Your task to perform on an android device: open chrome and create a bookmark for the current page Image 0: 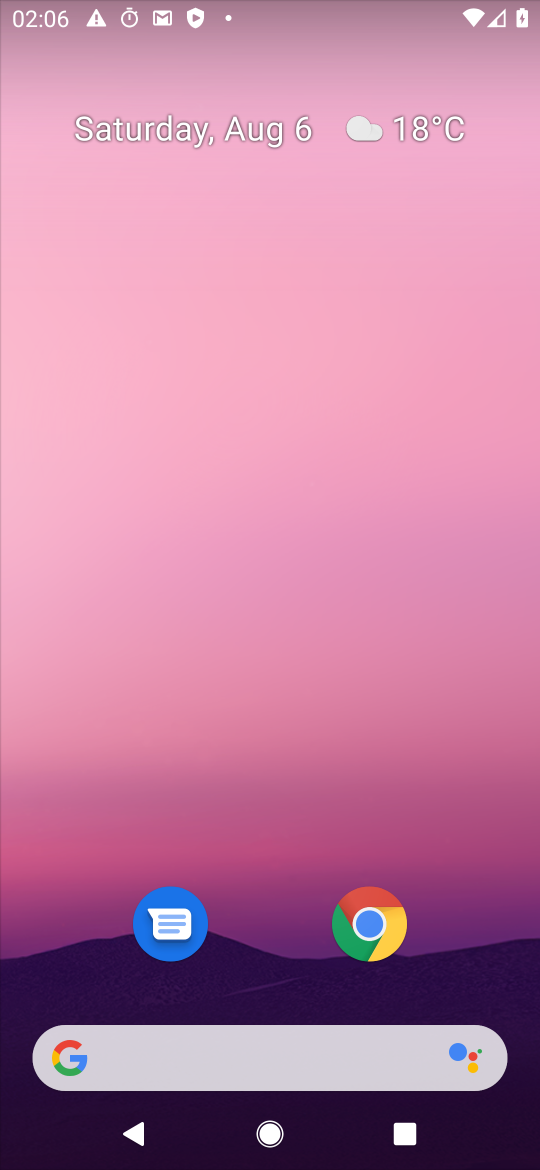
Step 0: drag from (248, 1039) to (132, 3)
Your task to perform on an android device: open chrome and create a bookmark for the current page Image 1: 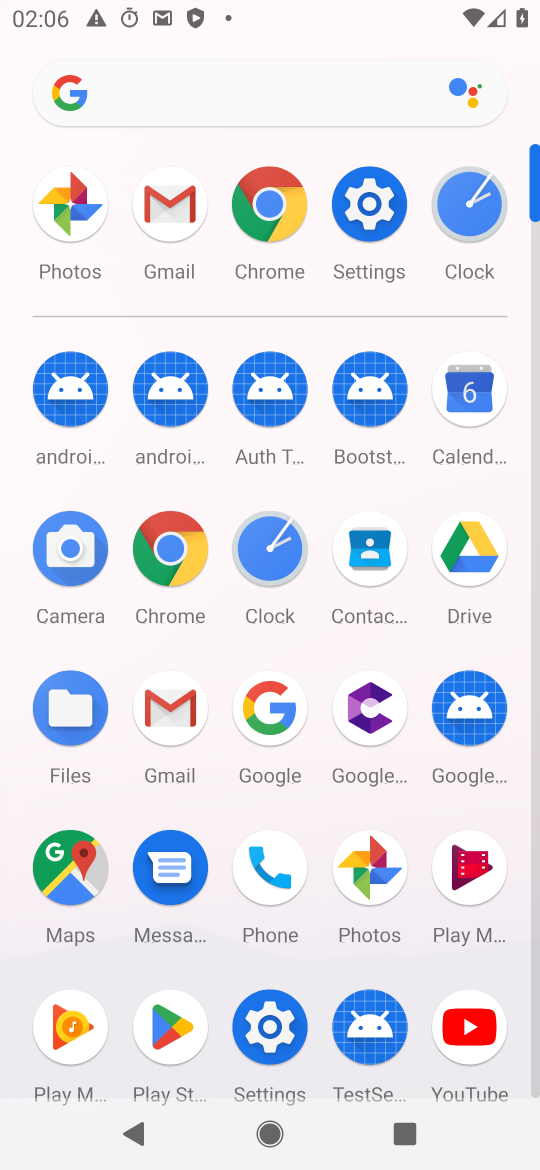
Step 1: click (152, 582)
Your task to perform on an android device: open chrome and create a bookmark for the current page Image 2: 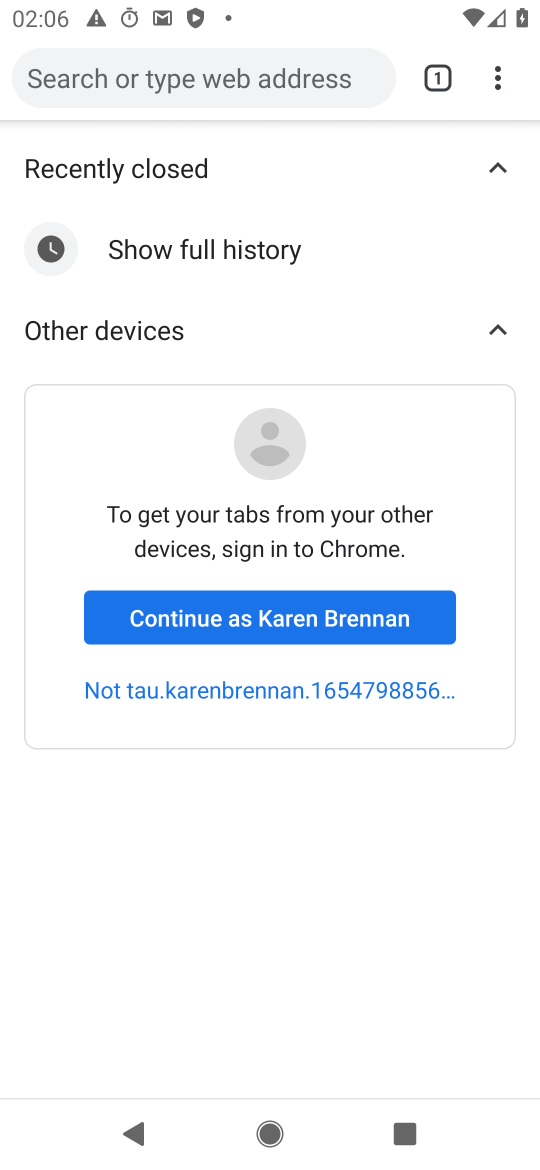
Step 2: click (491, 76)
Your task to perform on an android device: open chrome and create a bookmark for the current page Image 3: 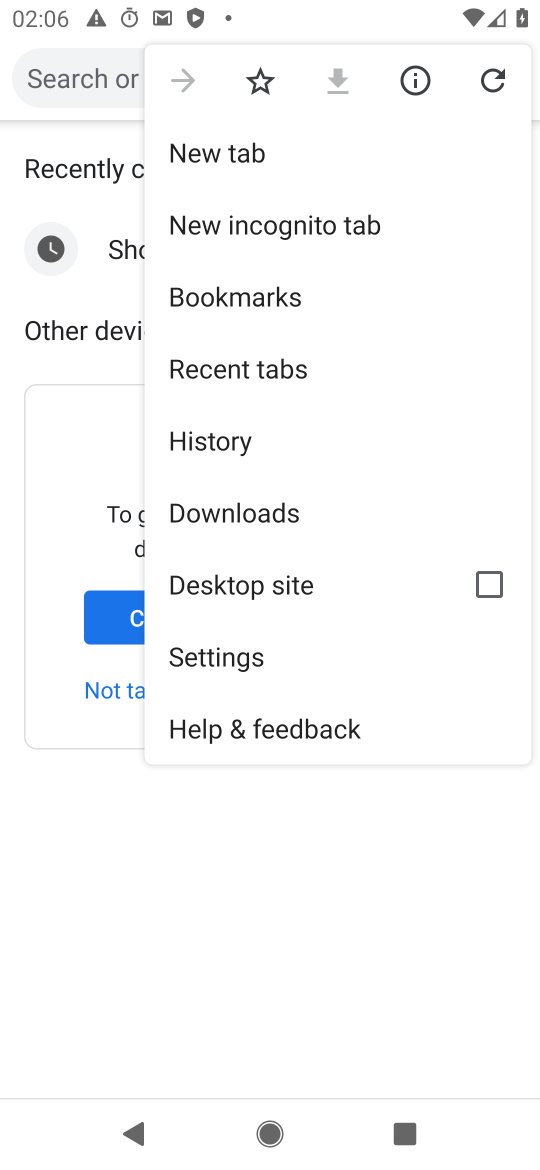
Step 3: click (251, 79)
Your task to perform on an android device: open chrome and create a bookmark for the current page Image 4: 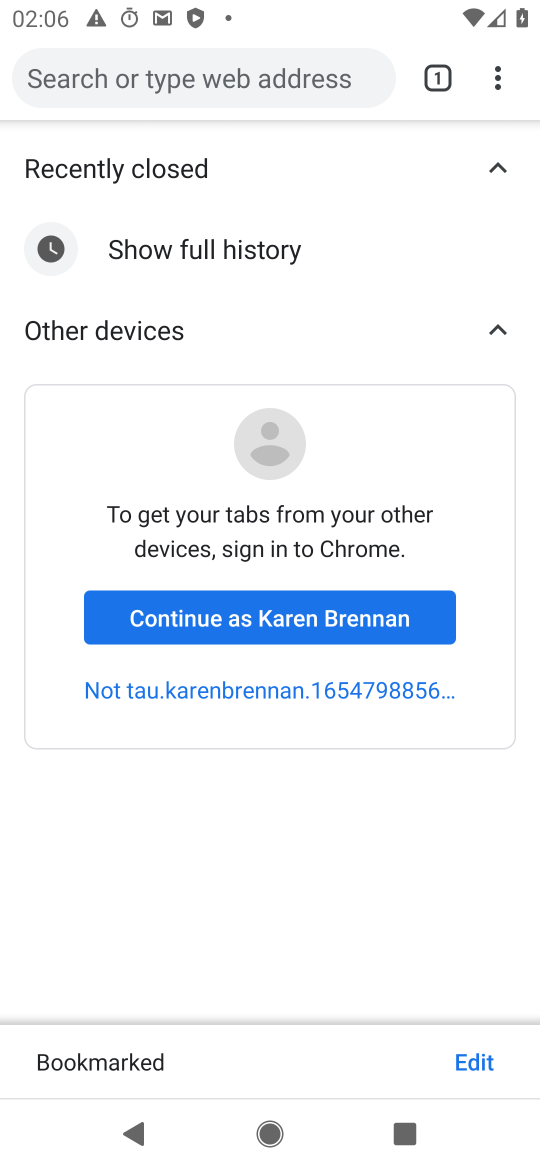
Step 4: task complete